Your task to perform on an android device: change text size in settings app Image 0: 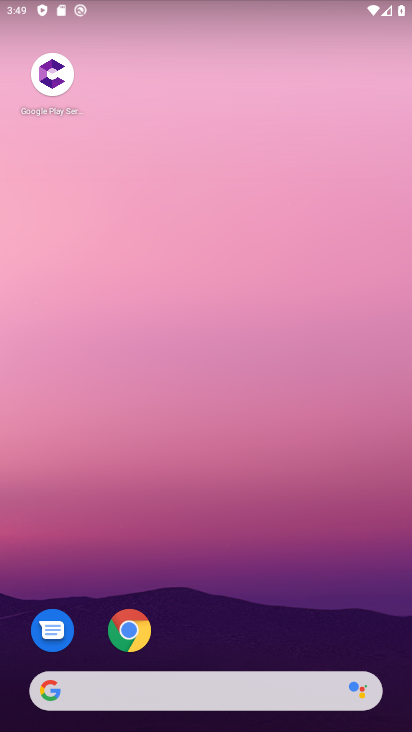
Step 0: drag from (212, 724) to (212, 265)
Your task to perform on an android device: change text size in settings app Image 1: 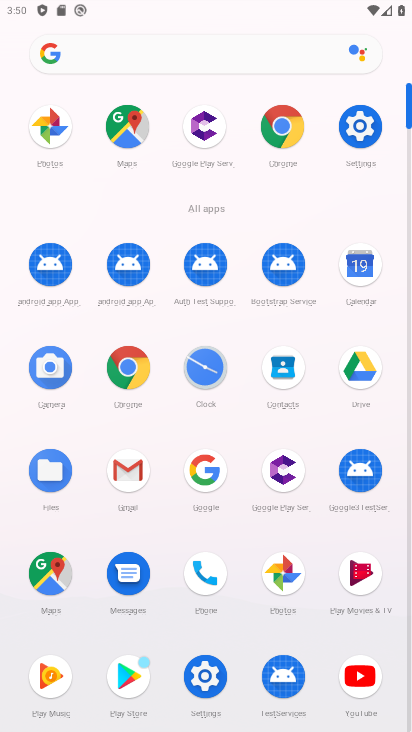
Step 1: click (358, 122)
Your task to perform on an android device: change text size in settings app Image 2: 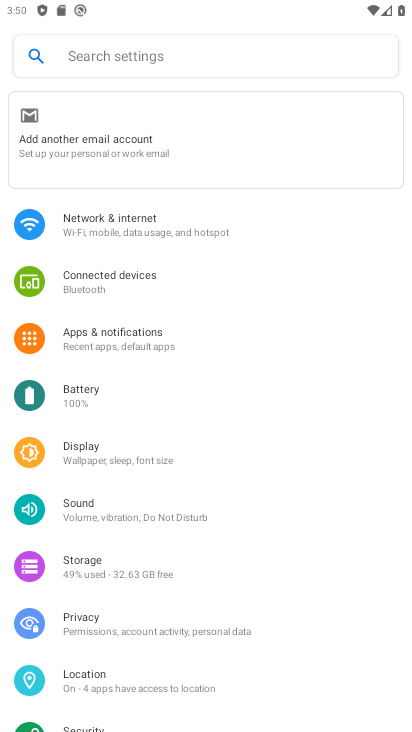
Step 2: drag from (105, 551) to (107, 430)
Your task to perform on an android device: change text size in settings app Image 3: 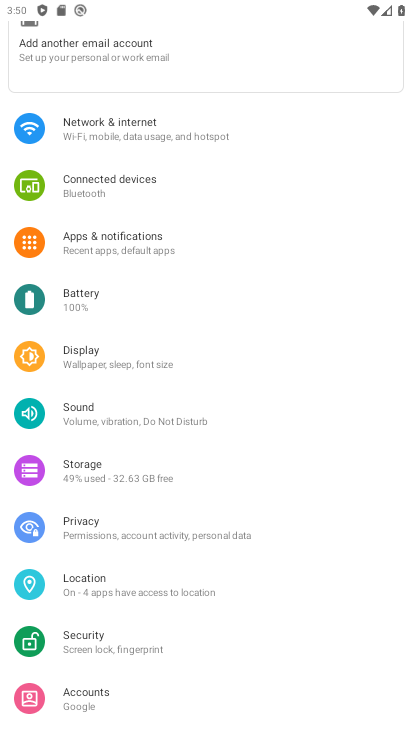
Step 3: click (104, 359)
Your task to perform on an android device: change text size in settings app Image 4: 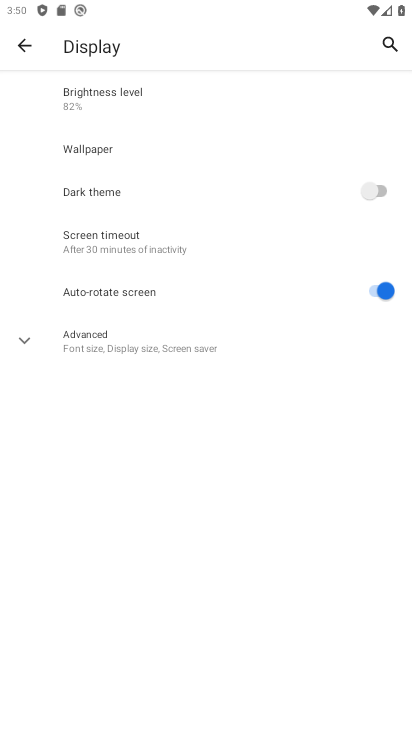
Step 4: click (107, 337)
Your task to perform on an android device: change text size in settings app Image 5: 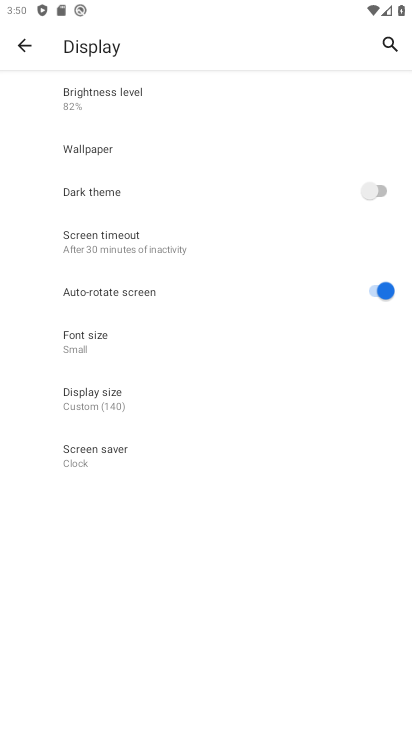
Step 5: click (83, 329)
Your task to perform on an android device: change text size in settings app Image 6: 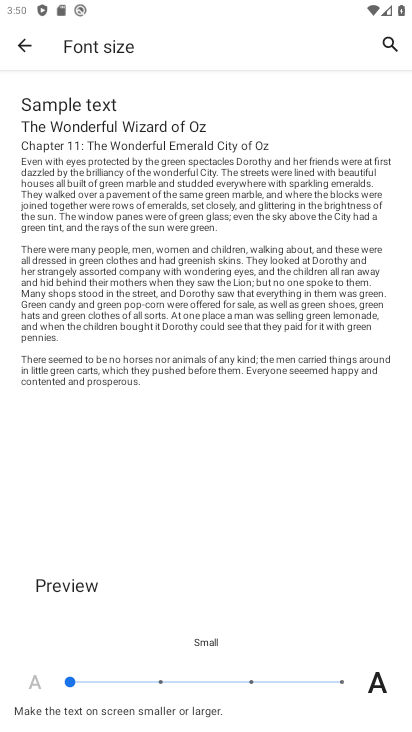
Step 6: click (156, 679)
Your task to perform on an android device: change text size in settings app Image 7: 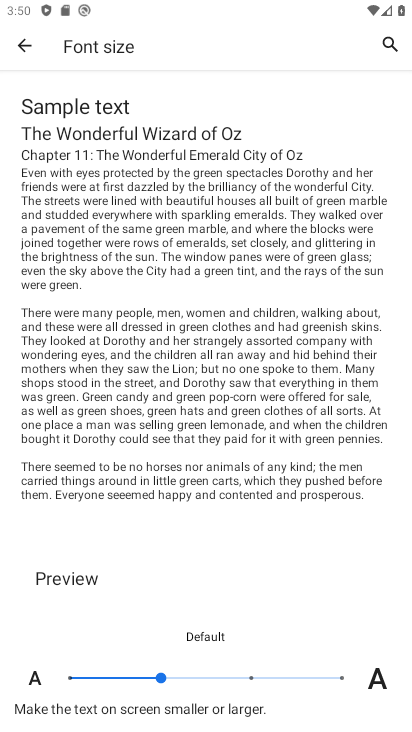
Step 7: task complete